Your task to perform on an android device: When is my next meeting? Image 0: 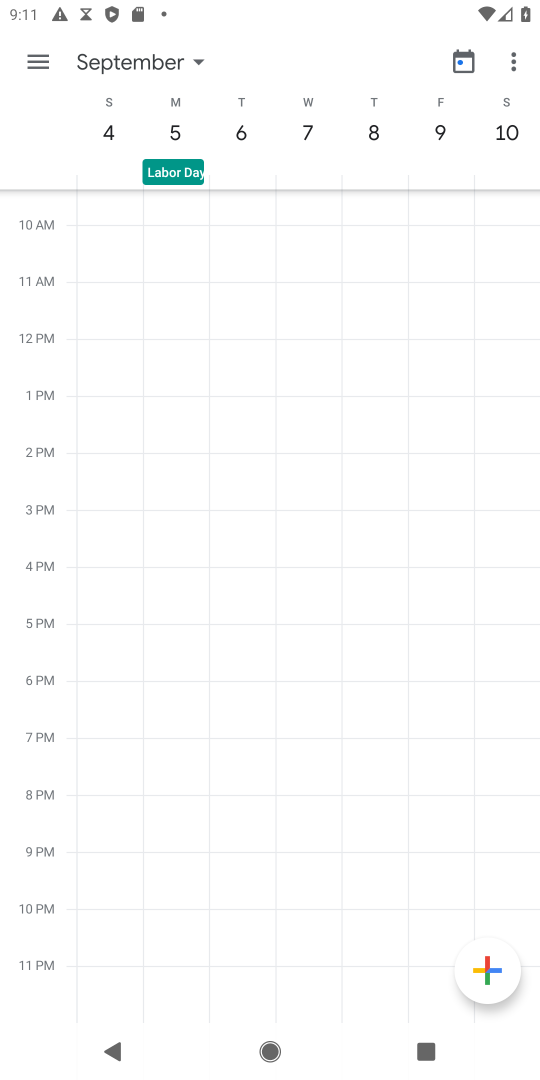
Step 0: drag from (151, 116) to (524, 144)
Your task to perform on an android device: When is my next meeting? Image 1: 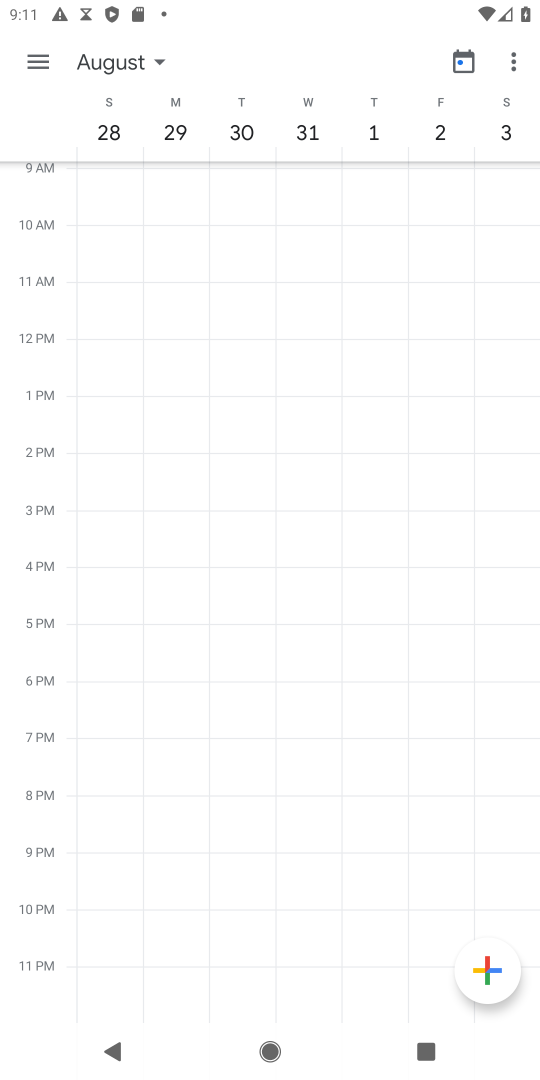
Step 1: drag from (90, 120) to (521, 164)
Your task to perform on an android device: When is my next meeting? Image 2: 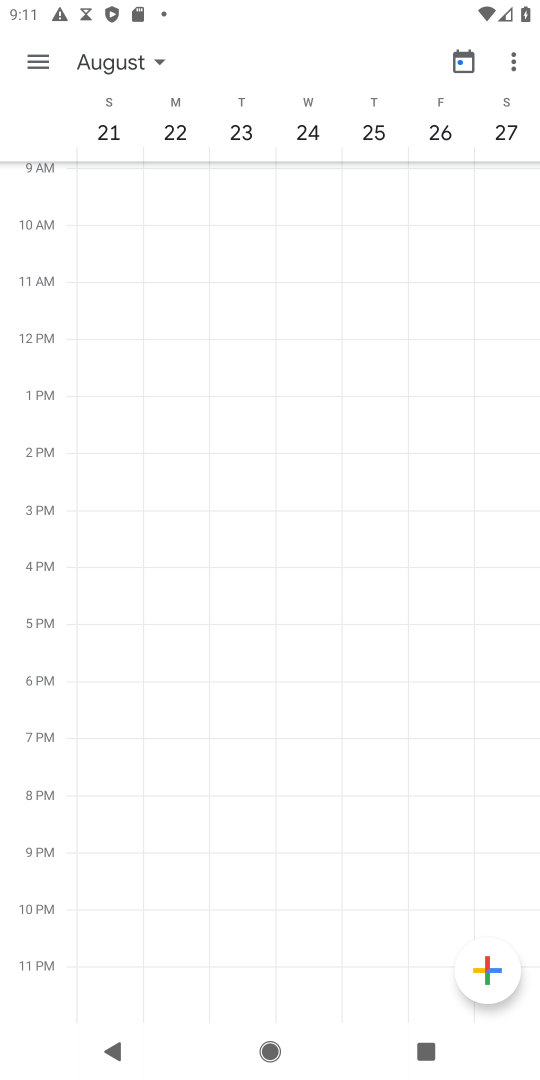
Step 2: drag from (84, 126) to (536, 189)
Your task to perform on an android device: When is my next meeting? Image 3: 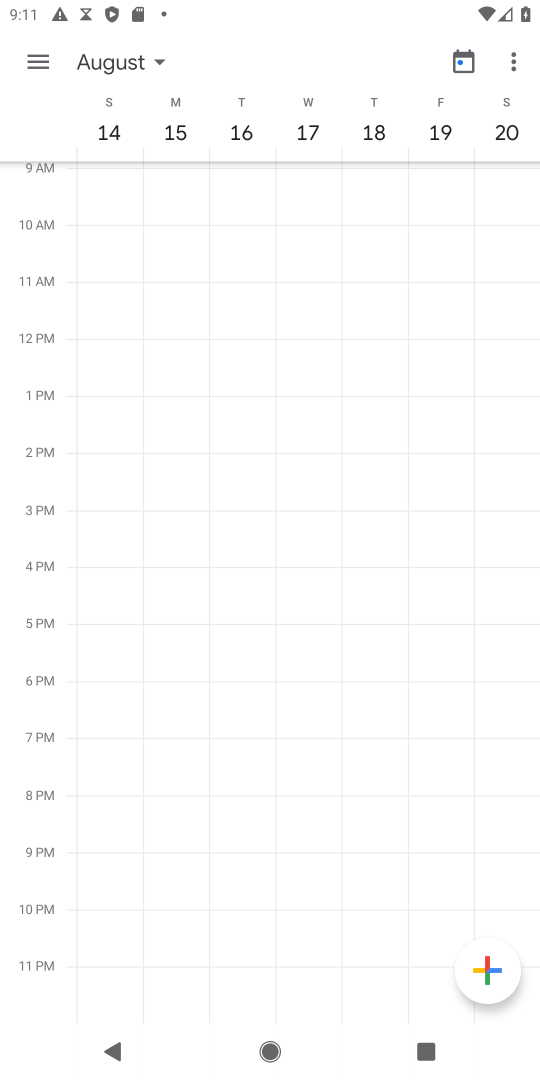
Step 3: drag from (162, 115) to (539, 154)
Your task to perform on an android device: When is my next meeting? Image 4: 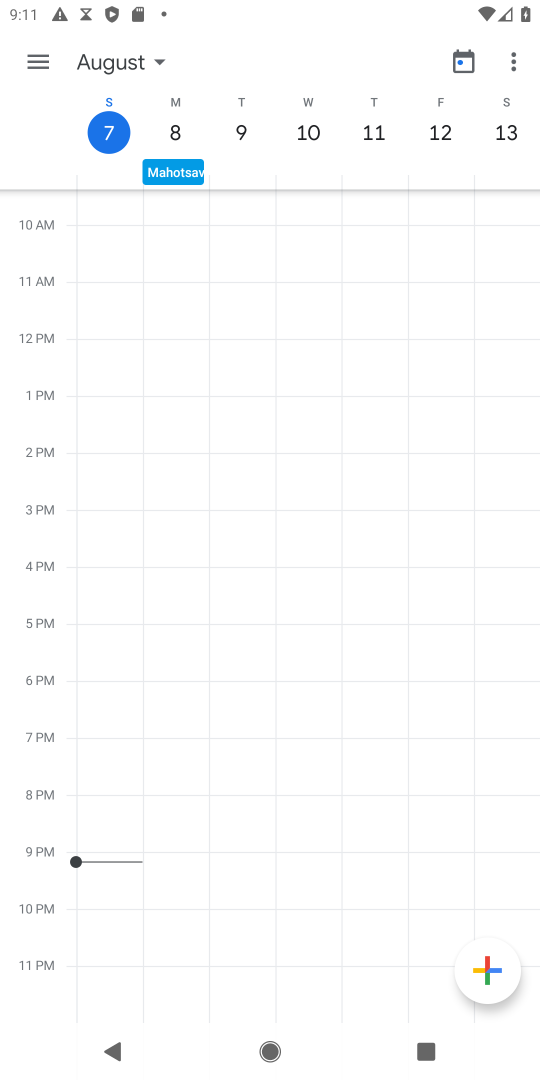
Step 4: drag from (108, 132) to (247, 167)
Your task to perform on an android device: When is my next meeting? Image 5: 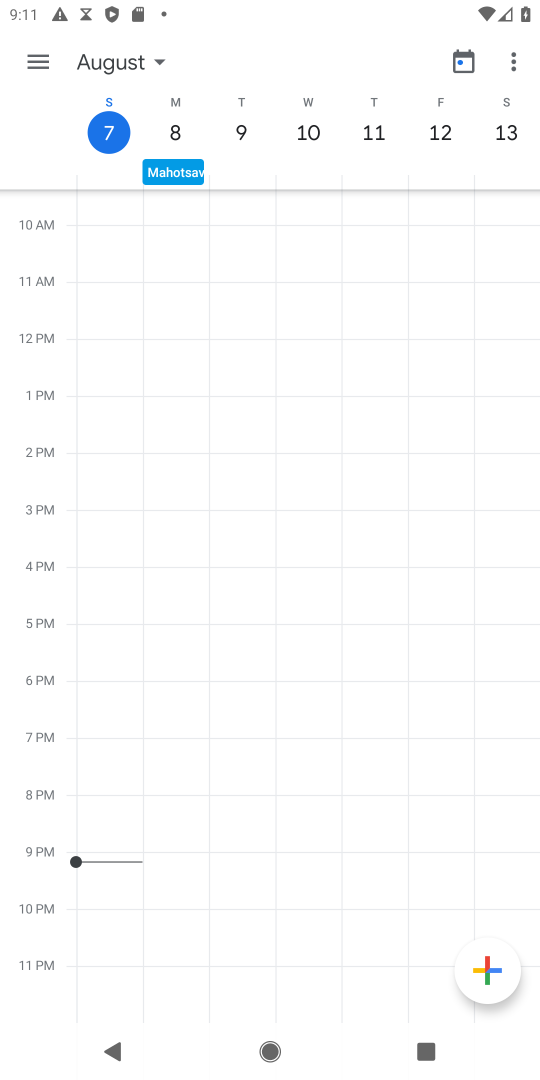
Step 5: click (233, 134)
Your task to perform on an android device: When is my next meeting? Image 6: 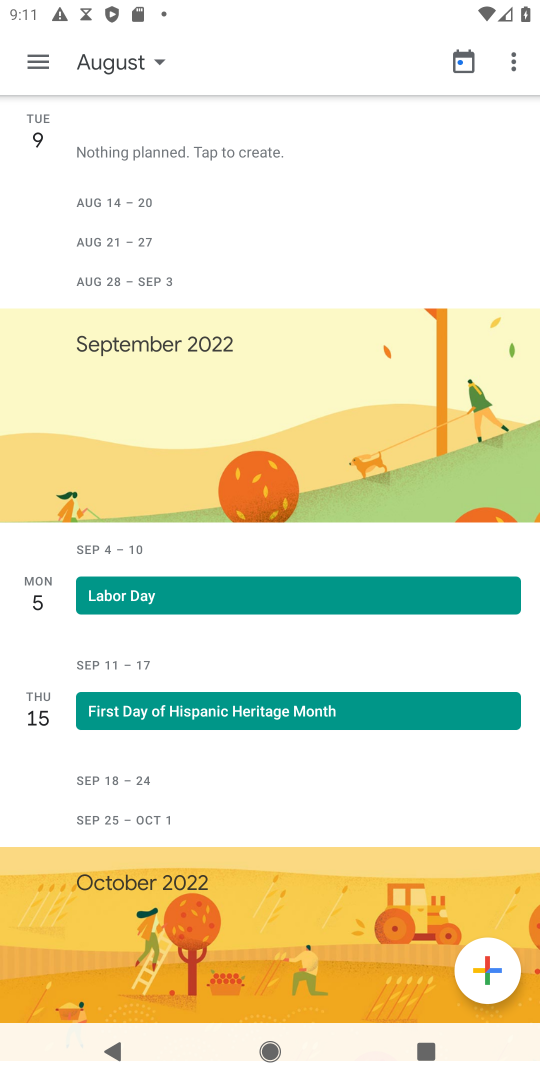
Step 6: task complete